Your task to perform on an android device: Open Chrome and go to the settings page Image 0: 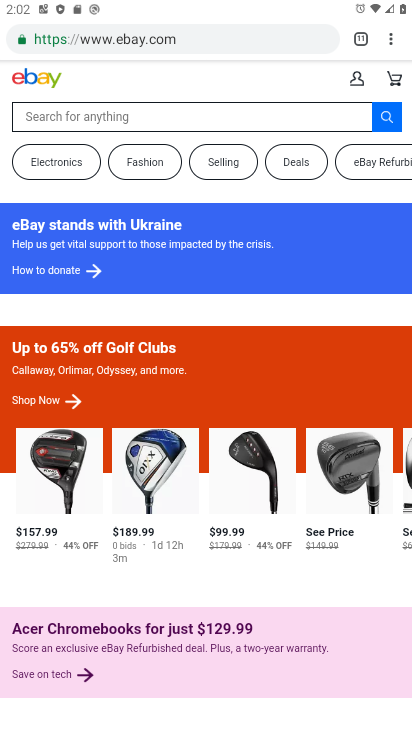
Step 0: click (391, 45)
Your task to perform on an android device: Open Chrome and go to the settings page Image 1: 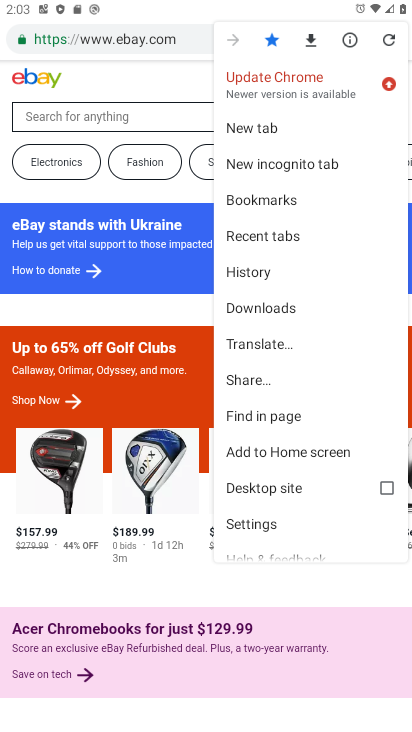
Step 1: click (263, 521)
Your task to perform on an android device: Open Chrome and go to the settings page Image 2: 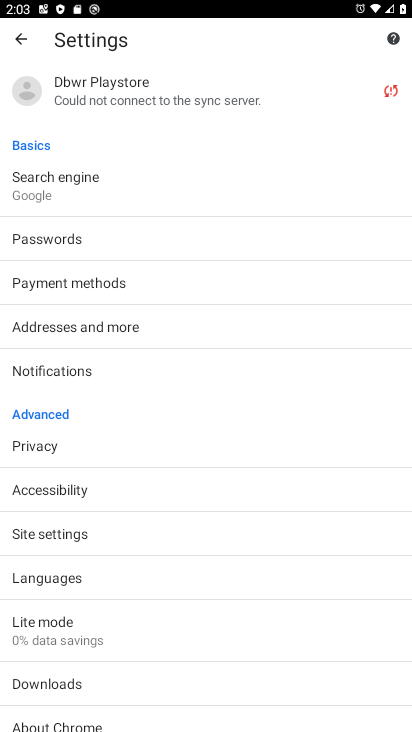
Step 2: task complete